Your task to perform on an android device: Open internet settings Image 0: 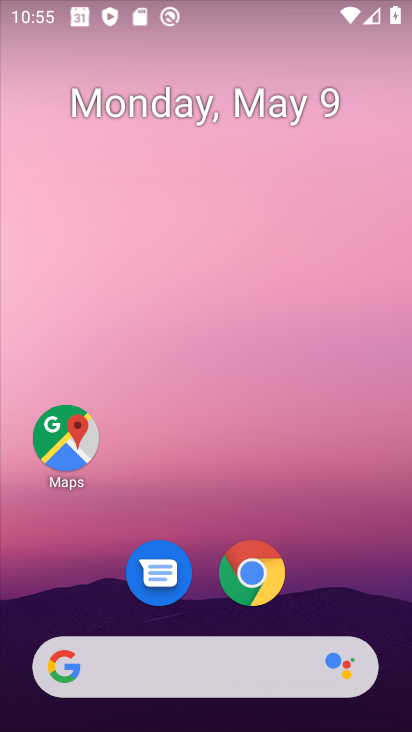
Step 0: drag from (192, 614) to (237, 177)
Your task to perform on an android device: Open internet settings Image 1: 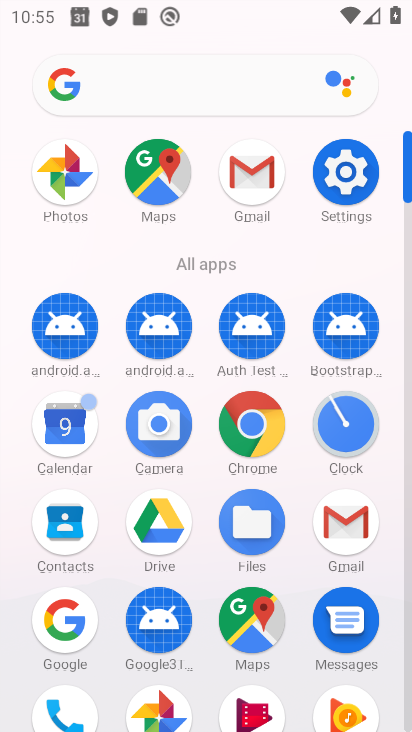
Step 1: drag from (211, 660) to (211, 289)
Your task to perform on an android device: Open internet settings Image 2: 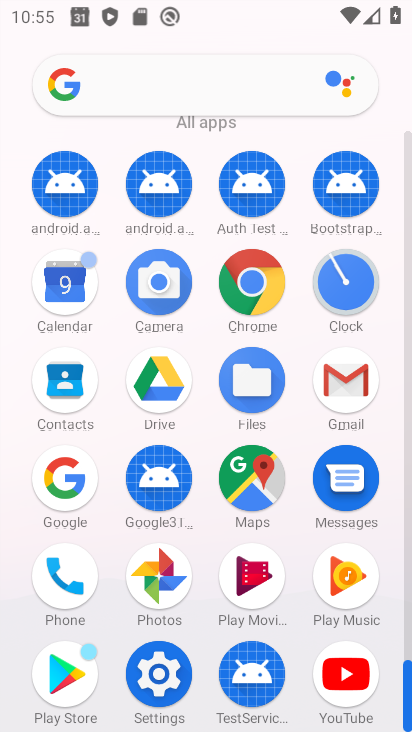
Step 2: click (166, 675)
Your task to perform on an android device: Open internet settings Image 3: 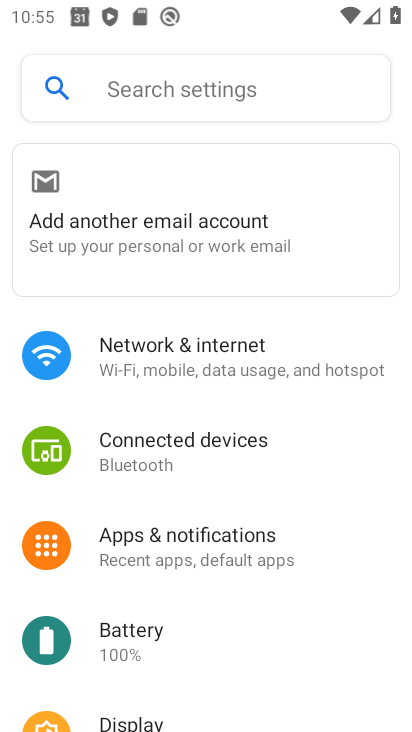
Step 3: click (223, 393)
Your task to perform on an android device: Open internet settings Image 4: 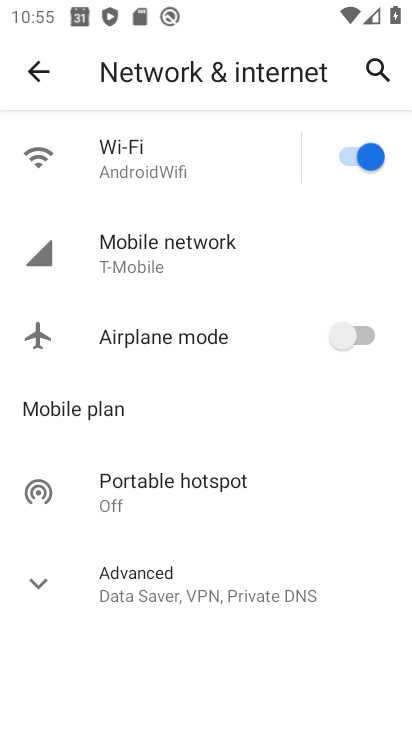
Step 4: click (252, 224)
Your task to perform on an android device: Open internet settings Image 5: 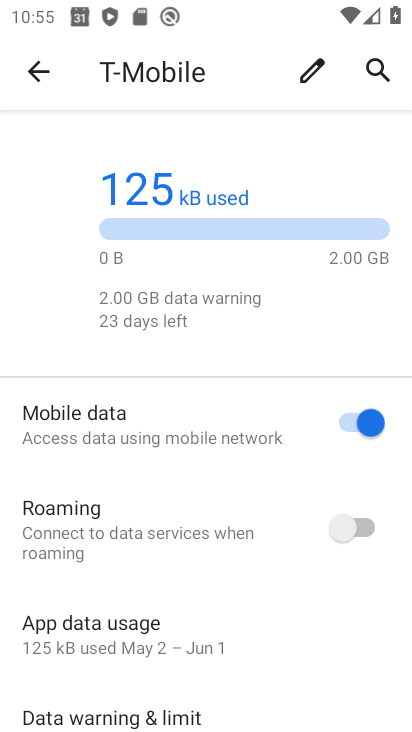
Step 5: task complete